Your task to perform on an android device: Open Google Chrome and click the shortcut for Amazon.com Image 0: 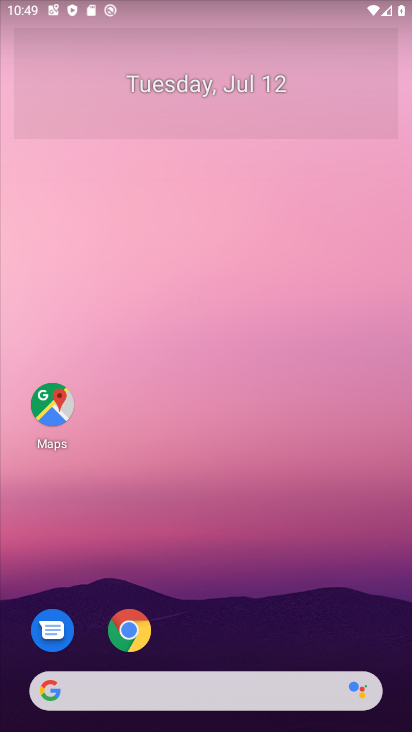
Step 0: press home button
Your task to perform on an android device: Open Google Chrome and click the shortcut for Amazon.com Image 1: 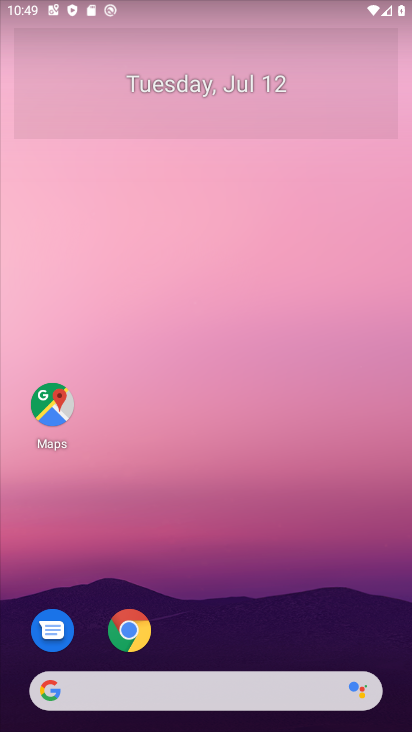
Step 1: drag from (274, 438) to (269, 110)
Your task to perform on an android device: Open Google Chrome and click the shortcut for Amazon.com Image 2: 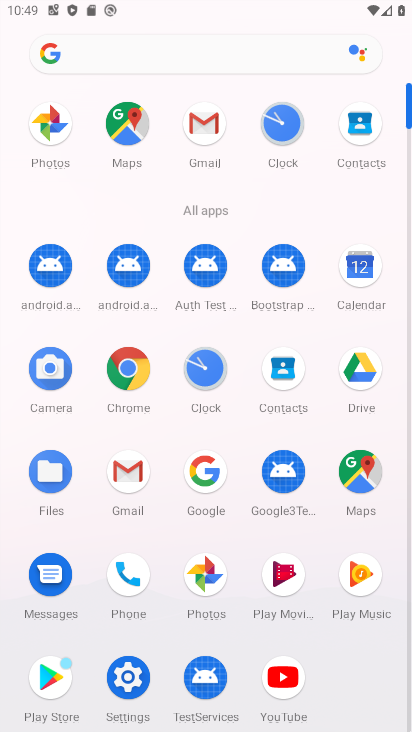
Step 2: click (131, 363)
Your task to perform on an android device: Open Google Chrome and click the shortcut for Amazon.com Image 3: 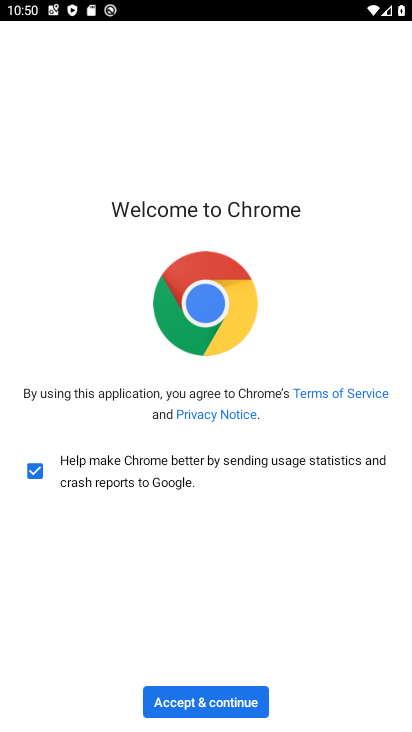
Step 3: click (257, 687)
Your task to perform on an android device: Open Google Chrome and click the shortcut for Amazon.com Image 4: 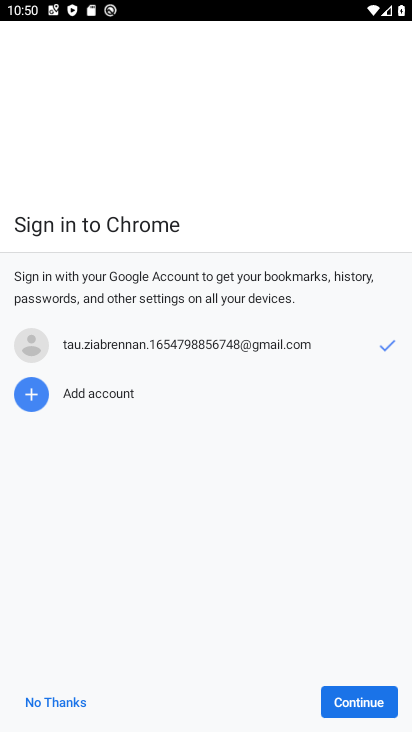
Step 4: click (379, 712)
Your task to perform on an android device: Open Google Chrome and click the shortcut for Amazon.com Image 5: 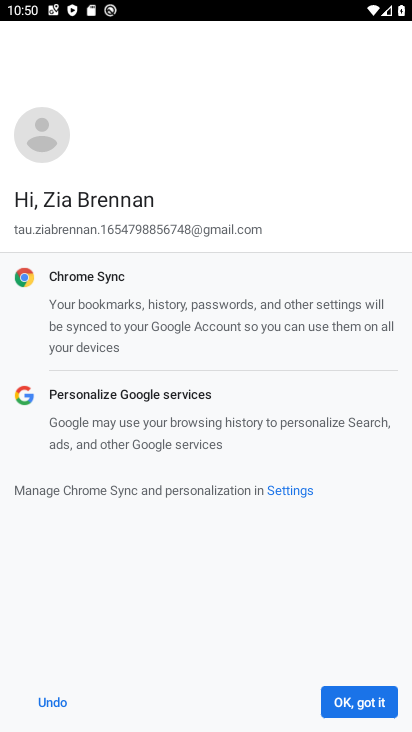
Step 5: click (378, 703)
Your task to perform on an android device: Open Google Chrome and click the shortcut for Amazon.com Image 6: 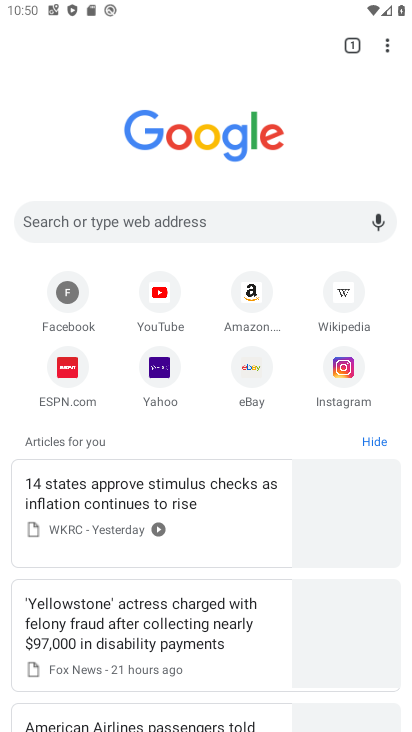
Step 6: click (250, 300)
Your task to perform on an android device: Open Google Chrome and click the shortcut for Amazon.com Image 7: 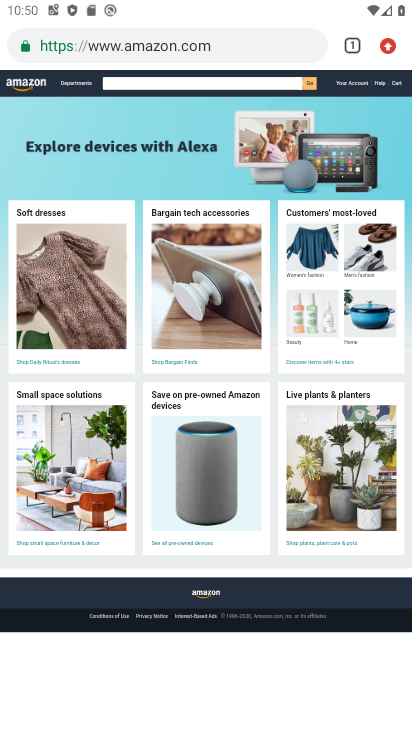
Step 7: task complete